Your task to perform on an android device: change timer sound Image 0: 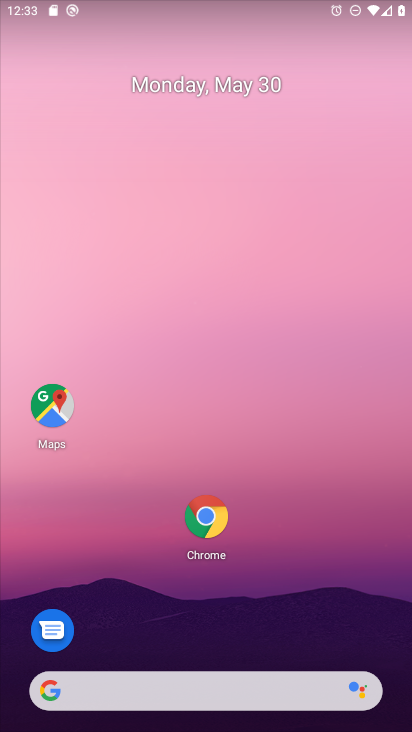
Step 0: press home button
Your task to perform on an android device: change timer sound Image 1: 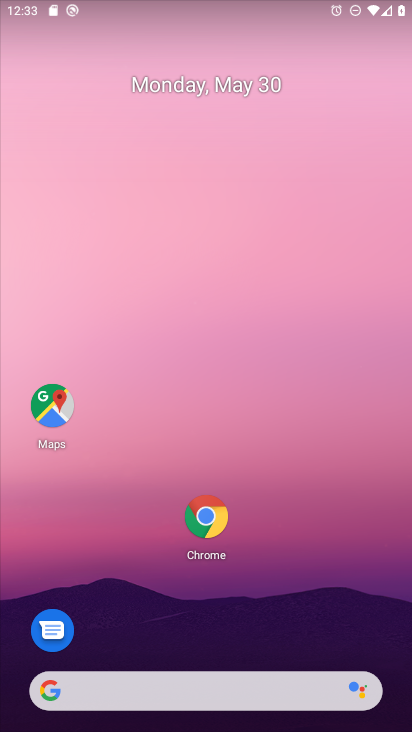
Step 1: drag from (198, 696) to (335, 149)
Your task to perform on an android device: change timer sound Image 2: 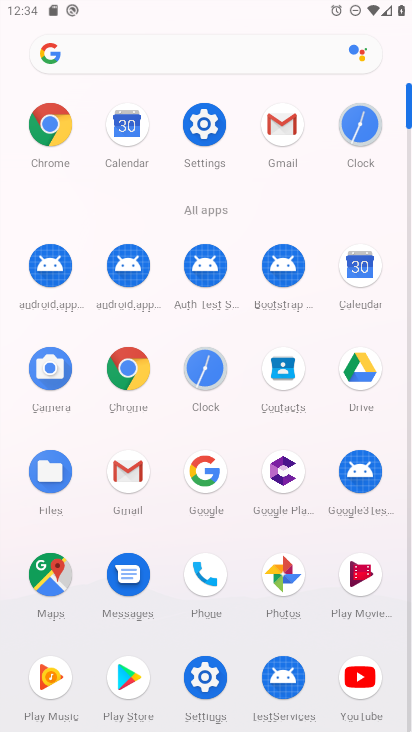
Step 2: click (349, 129)
Your task to perform on an android device: change timer sound Image 3: 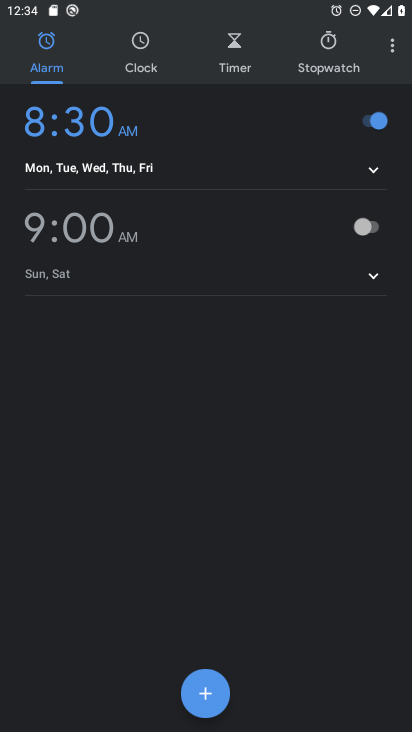
Step 3: click (392, 49)
Your task to perform on an android device: change timer sound Image 4: 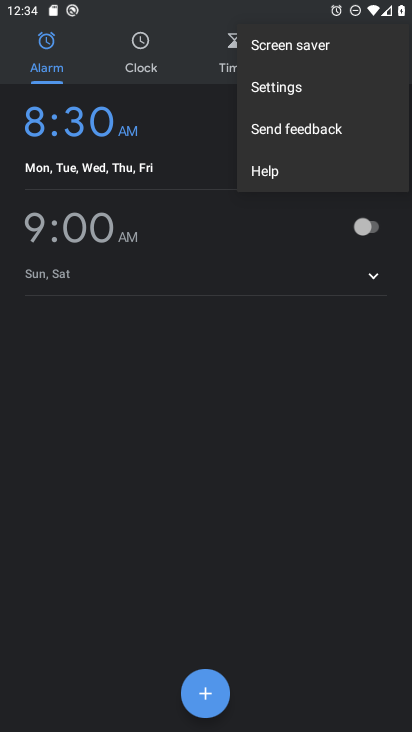
Step 4: click (293, 99)
Your task to perform on an android device: change timer sound Image 5: 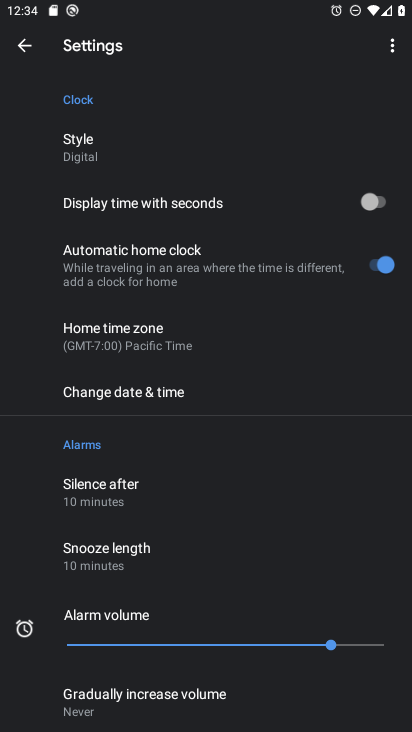
Step 5: drag from (191, 561) to (307, 98)
Your task to perform on an android device: change timer sound Image 6: 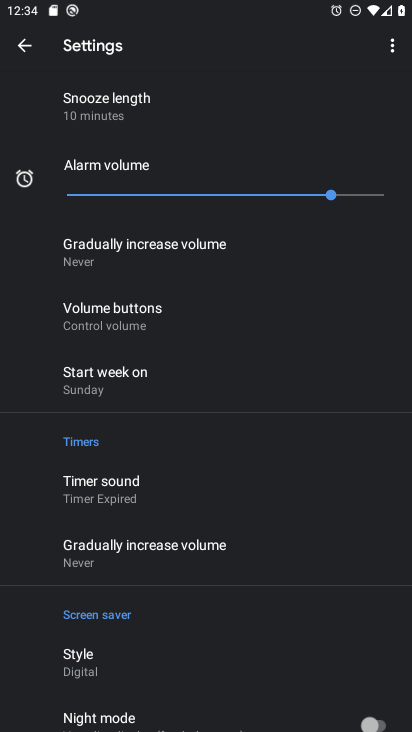
Step 6: click (136, 481)
Your task to perform on an android device: change timer sound Image 7: 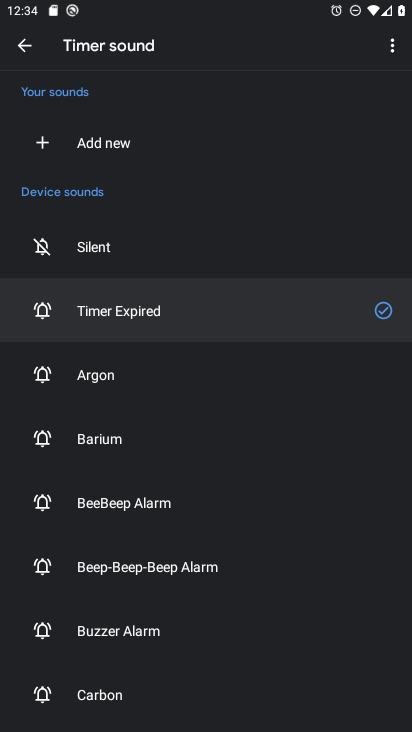
Step 7: click (95, 377)
Your task to perform on an android device: change timer sound Image 8: 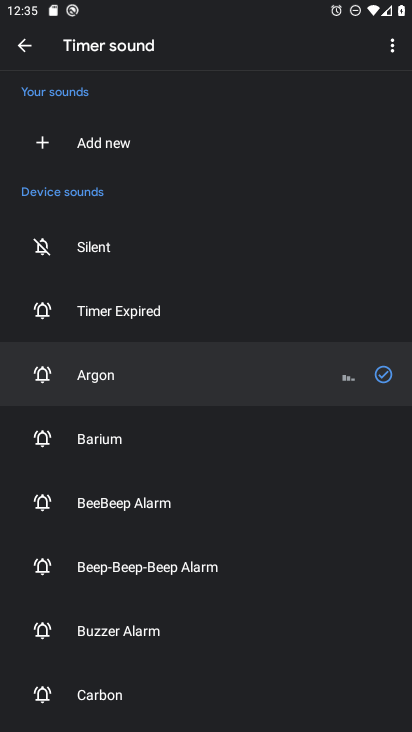
Step 8: task complete